Your task to perform on an android device: Open settings on Google Maps Image 0: 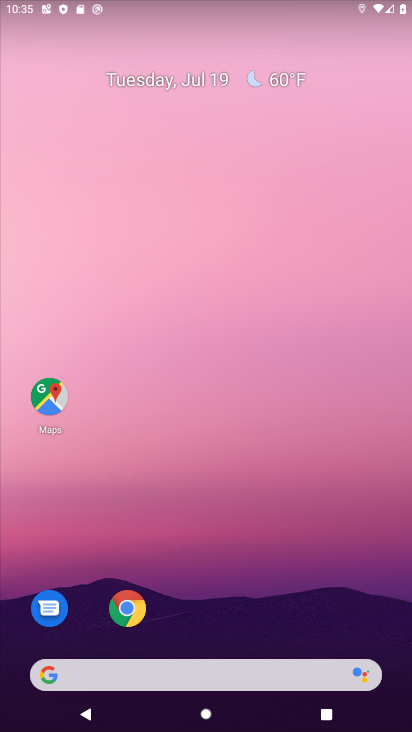
Step 0: drag from (196, 629) to (210, 37)
Your task to perform on an android device: Open settings on Google Maps Image 1: 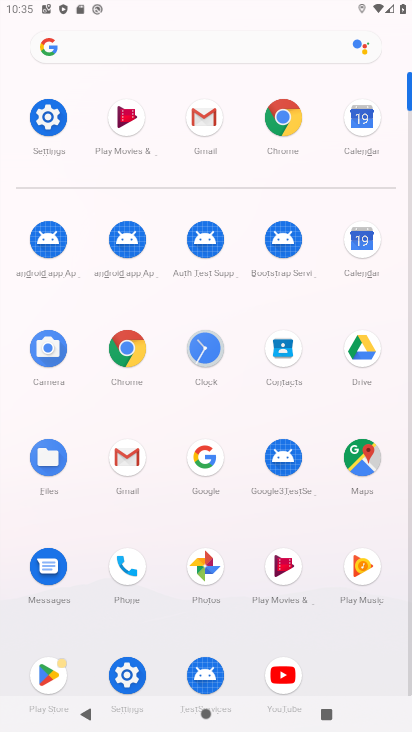
Step 1: click (362, 470)
Your task to perform on an android device: Open settings on Google Maps Image 2: 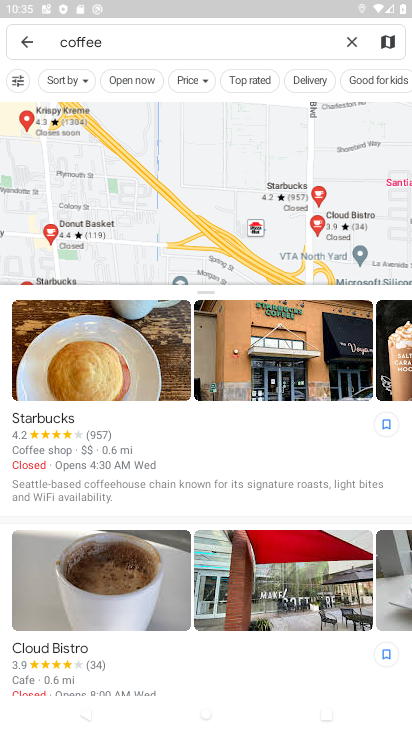
Step 2: click (17, 51)
Your task to perform on an android device: Open settings on Google Maps Image 3: 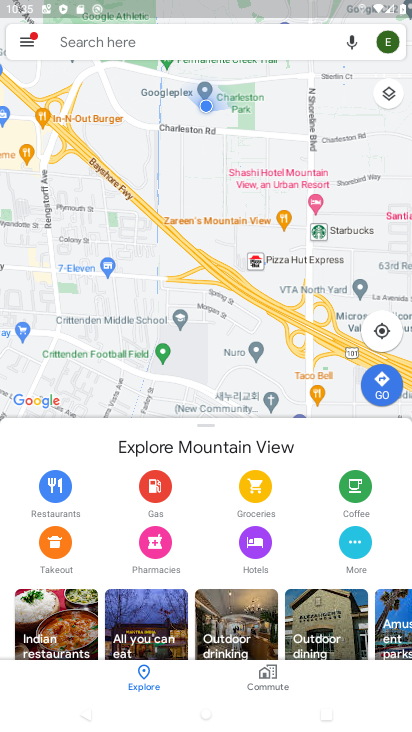
Step 3: click (26, 41)
Your task to perform on an android device: Open settings on Google Maps Image 4: 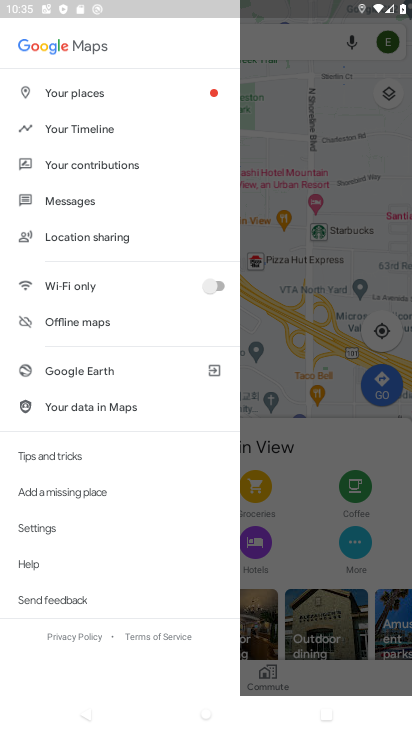
Step 4: click (45, 531)
Your task to perform on an android device: Open settings on Google Maps Image 5: 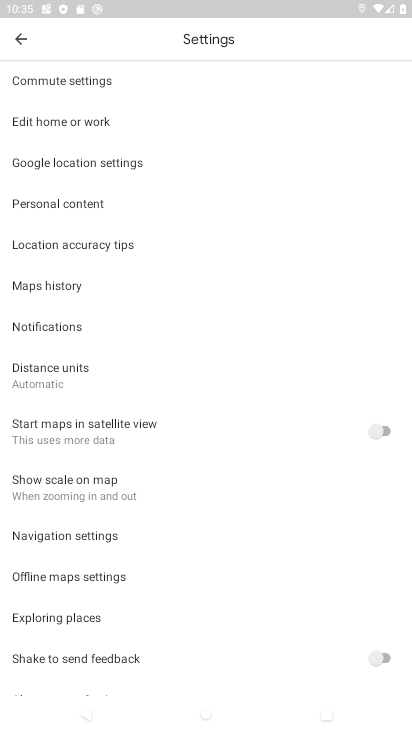
Step 5: task complete